Your task to perform on an android device: Open ESPN.com Image 0: 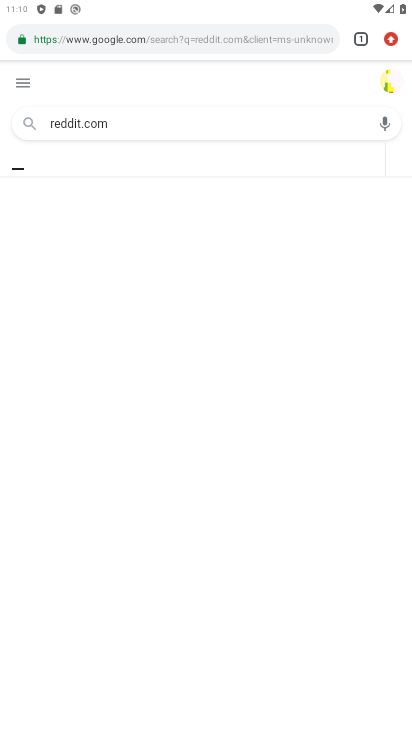
Step 0: press home button
Your task to perform on an android device: Open ESPN.com Image 1: 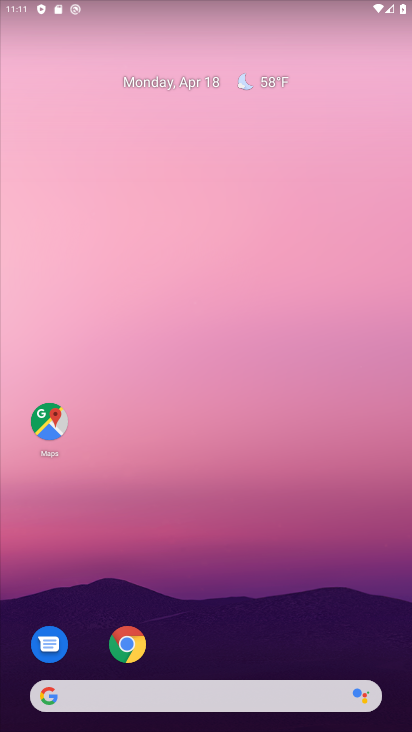
Step 1: click (133, 642)
Your task to perform on an android device: Open ESPN.com Image 2: 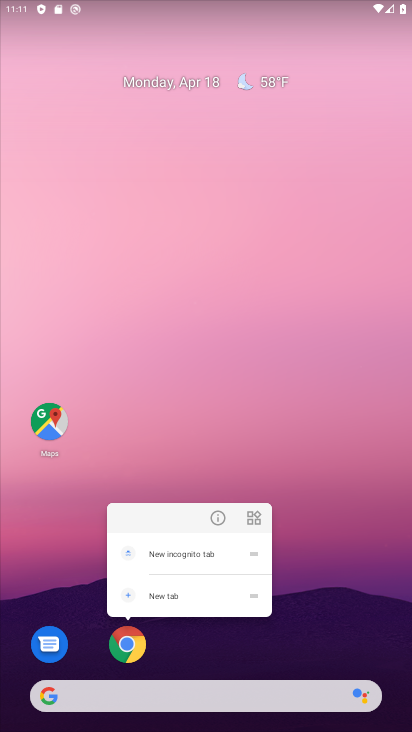
Step 2: click (210, 519)
Your task to perform on an android device: Open ESPN.com Image 3: 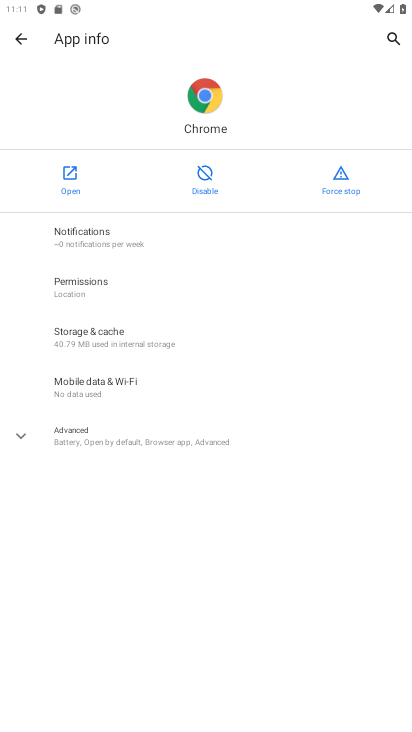
Step 3: click (75, 175)
Your task to perform on an android device: Open ESPN.com Image 4: 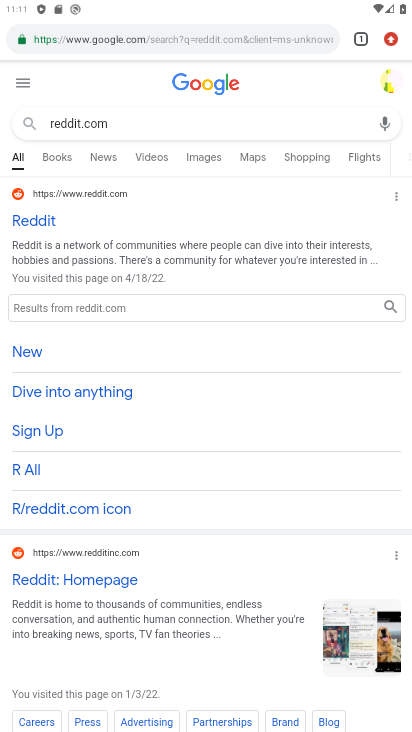
Step 4: click (262, 120)
Your task to perform on an android device: Open ESPN.com Image 5: 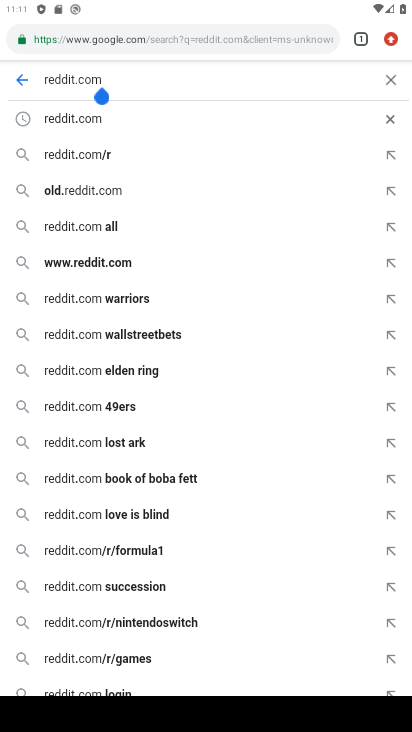
Step 5: click (383, 80)
Your task to perform on an android device: Open ESPN.com Image 6: 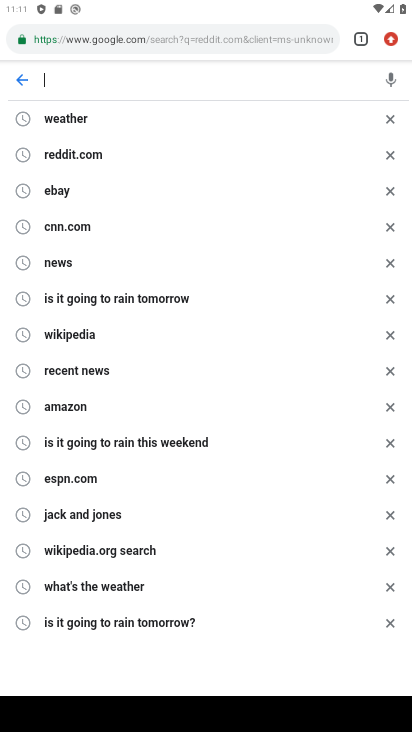
Step 6: type "ESPN.com"
Your task to perform on an android device: Open ESPN.com Image 7: 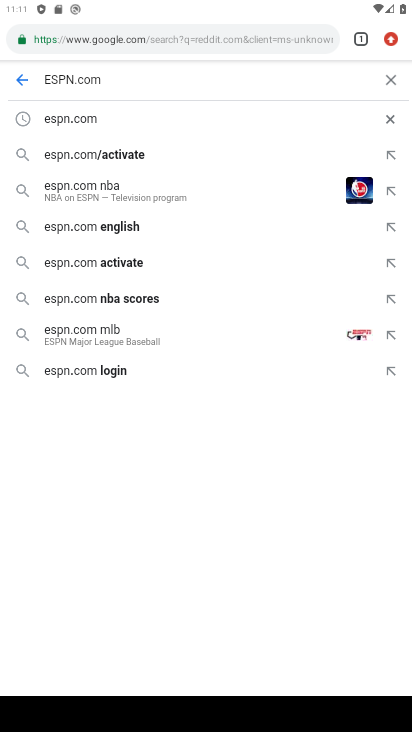
Step 7: click (63, 121)
Your task to perform on an android device: Open ESPN.com Image 8: 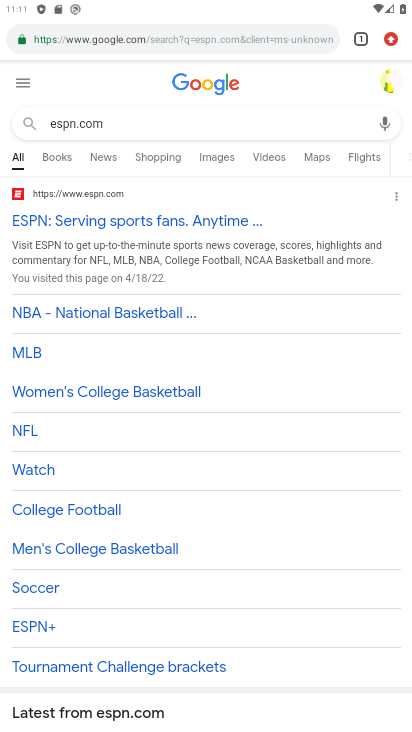
Step 8: task complete